Your task to perform on an android device: Open Chrome and go to settings Image 0: 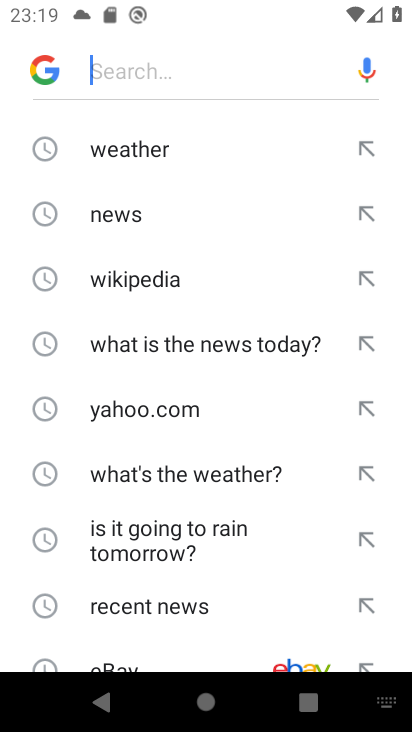
Step 0: press home button
Your task to perform on an android device: Open Chrome and go to settings Image 1: 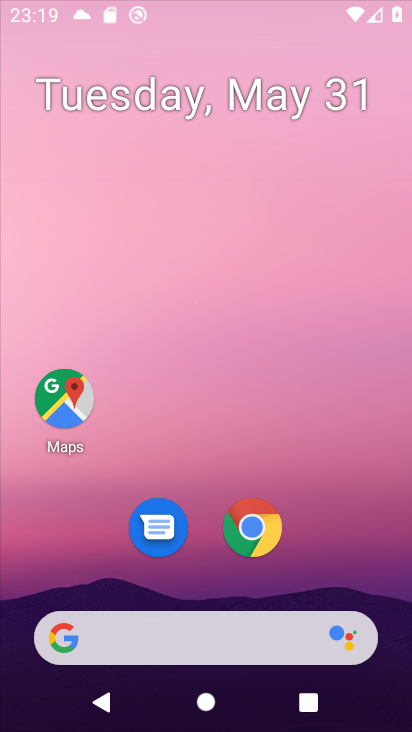
Step 1: click (267, 506)
Your task to perform on an android device: Open Chrome and go to settings Image 2: 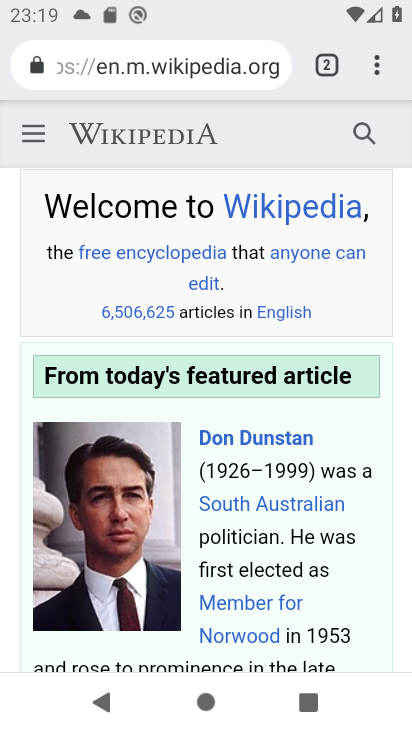
Step 2: click (371, 63)
Your task to perform on an android device: Open Chrome and go to settings Image 3: 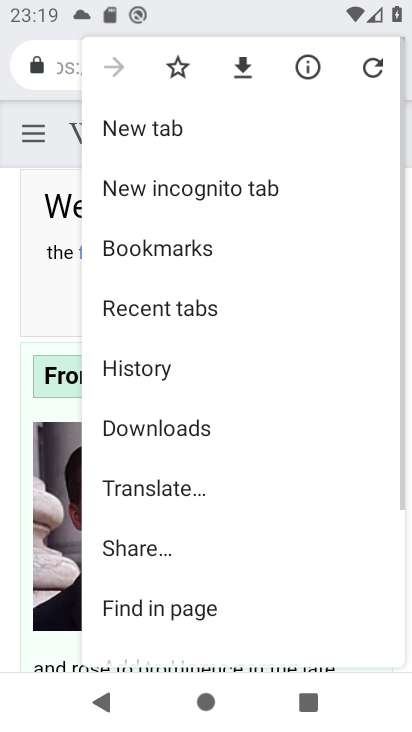
Step 3: drag from (203, 531) to (241, 105)
Your task to perform on an android device: Open Chrome and go to settings Image 4: 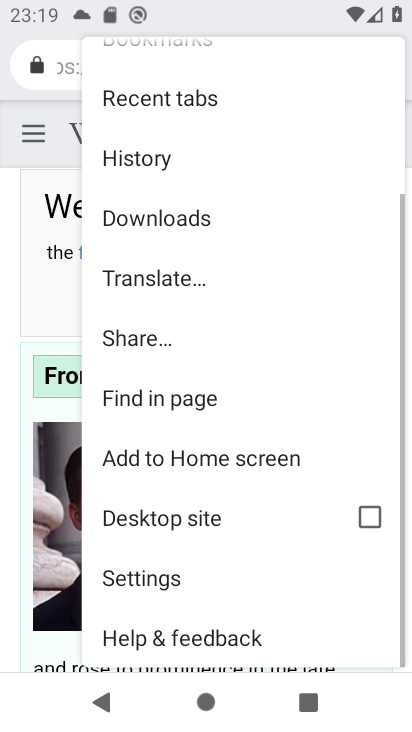
Step 4: click (189, 579)
Your task to perform on an android device: Open Chrome and go to settings Image 5: 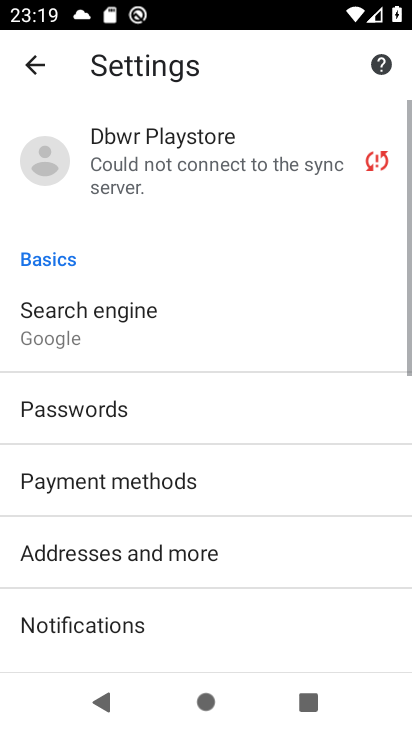
Step 5: task complete